Your task to perform on an android device: Clear all items from cart on bestbuy. Search for bose soundlink on bestbuy, select the first entry, add it to the cart, then select checkout. Image 0: 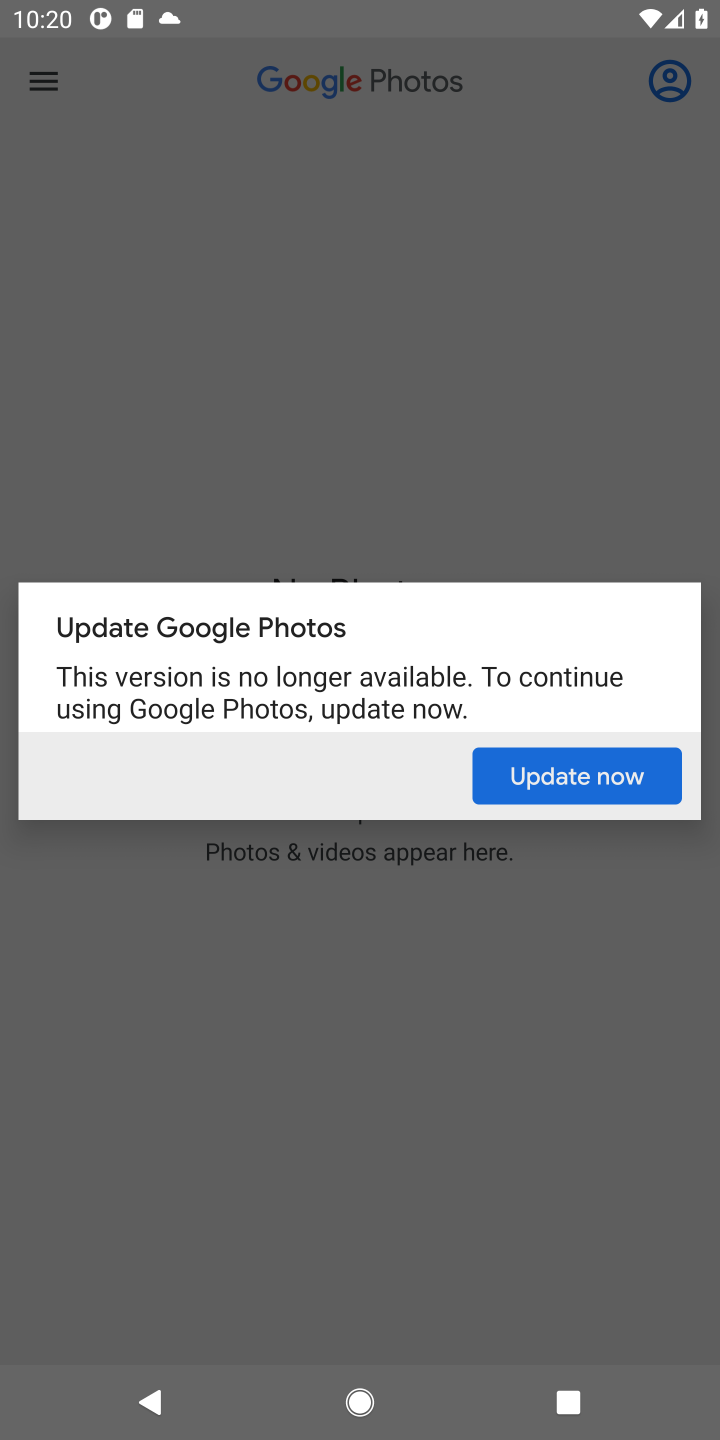
Step 0: press home button
Your task to perform on an android device: Clear all items from cart on bestbuy. Search for bose soundlink on bestbuy, select the first entry, add it to the cart, then select checkout. Image 1: 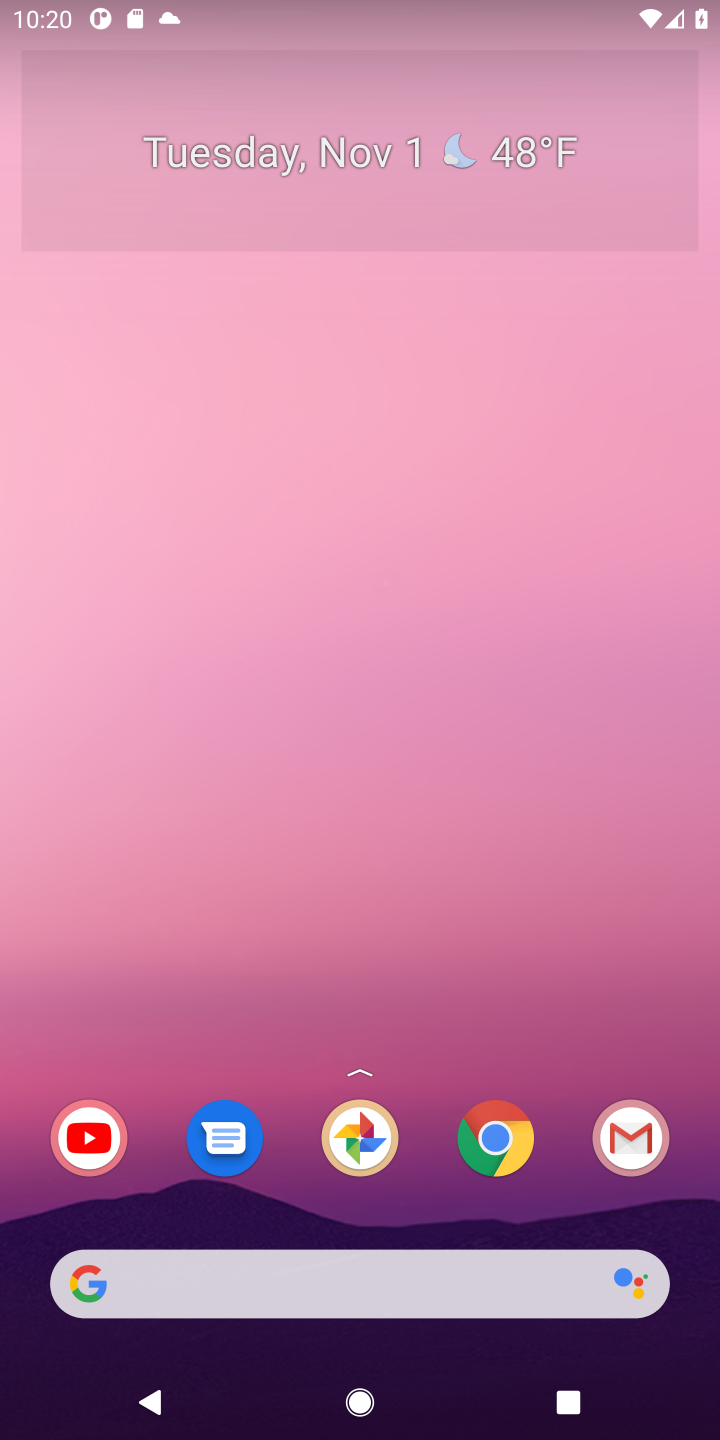
Step 1: click (498, 1141)
Your task to perform on an android device: Clear all items from cart on bestbuy. Search for bose soundlink on bestbuy, select the first entry, add it to the cart, then select checkout. Image 2: 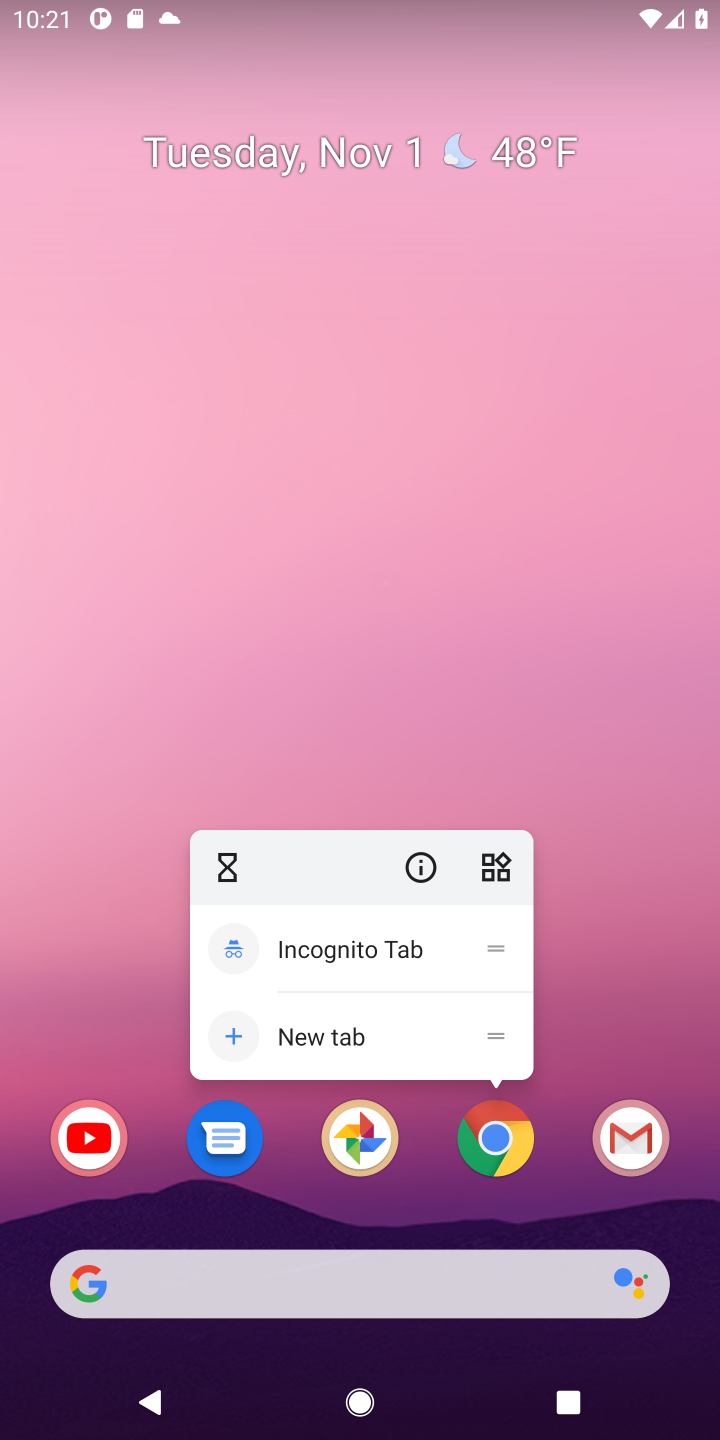
Step 2: click (496, 1130)
Your task to perform on an android device: Clear all items from cart on bestbuy. Search for bose soundlink on bestbuy, select the first entry, add it to the cart, then select checkout. Image 3: 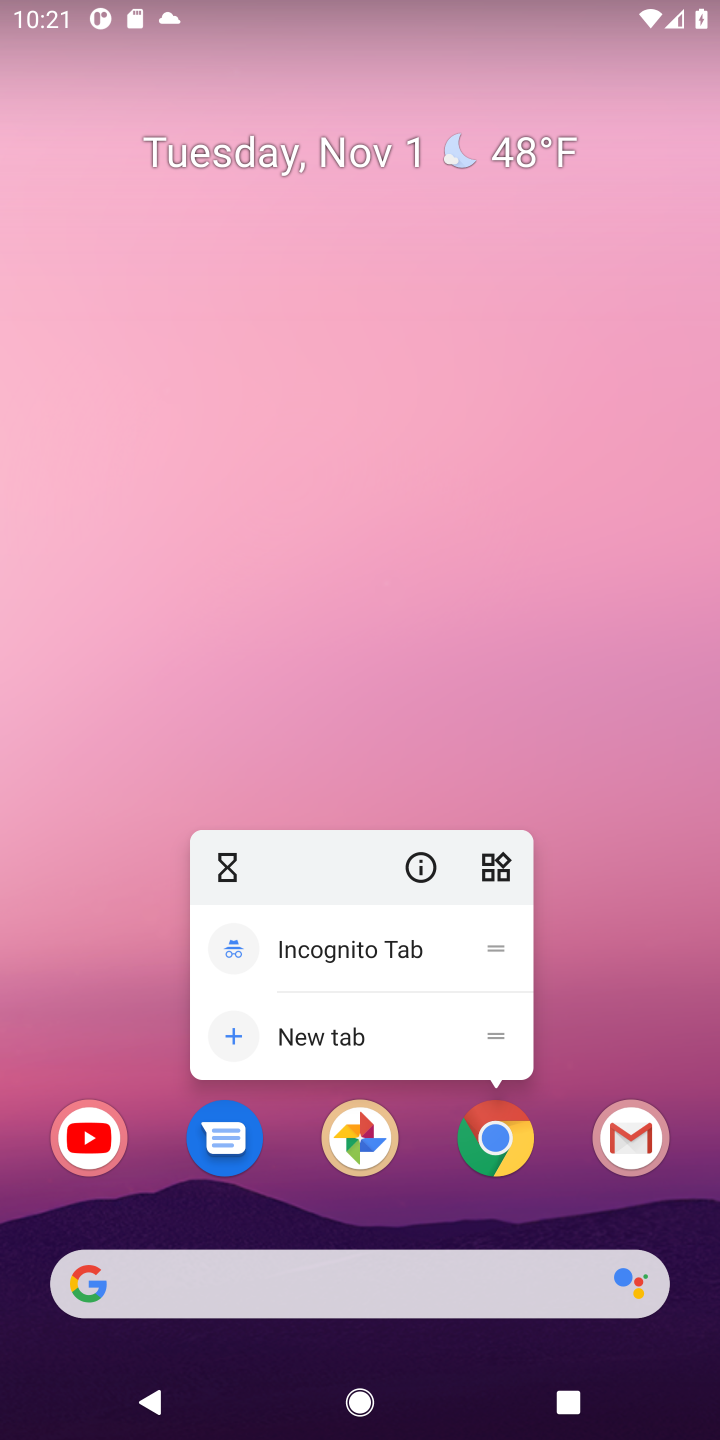
Step 3: click (495, 1142)
Your task to perform on an android device: Clear all items from cart on bestbuy. Search for bose soundlink on bestbuy, select the first entry, add it to the cart, then select checkout. Image 4: 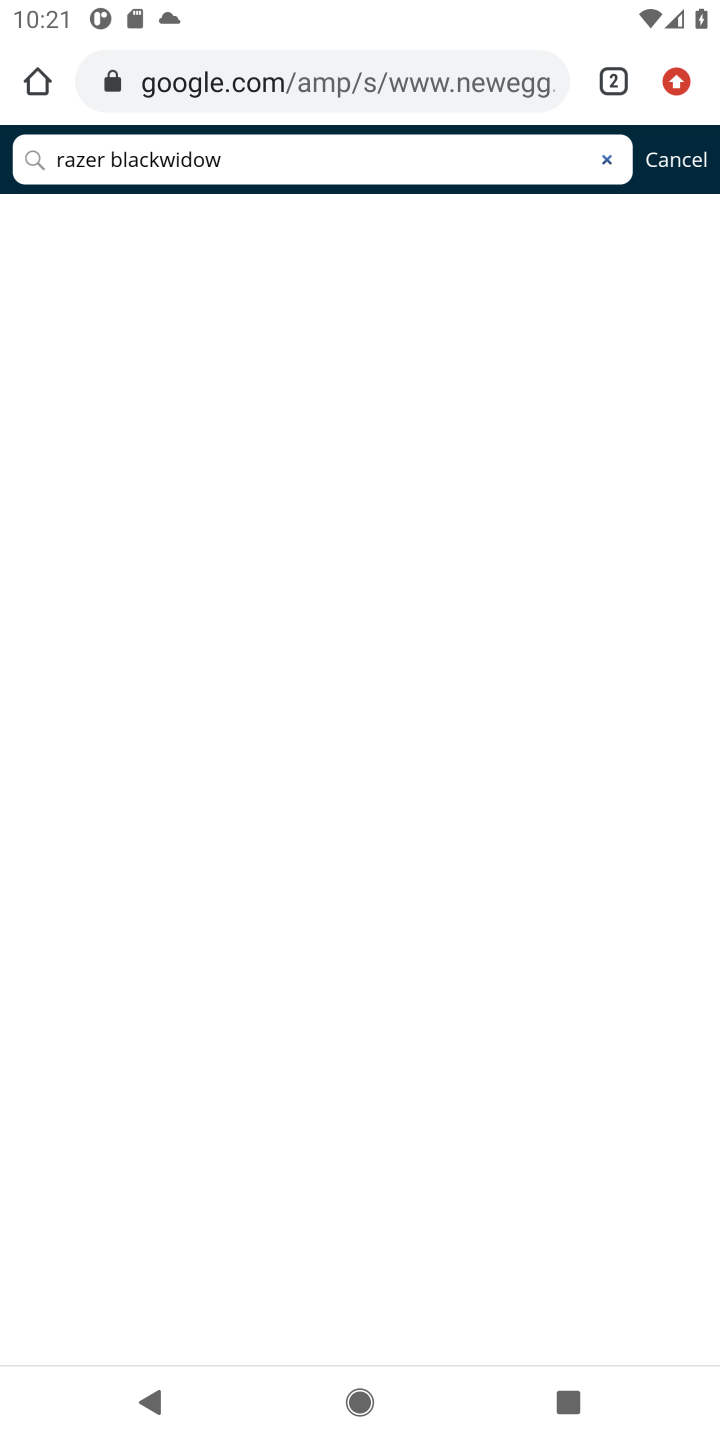
Step 4: click (404, 73)
Your task to perform on an android device: Clear all items from cart on bestbuy. Search for bose soundlink on bestbuy, select the first entry, add it to the cart, then select checkout. Image 5: 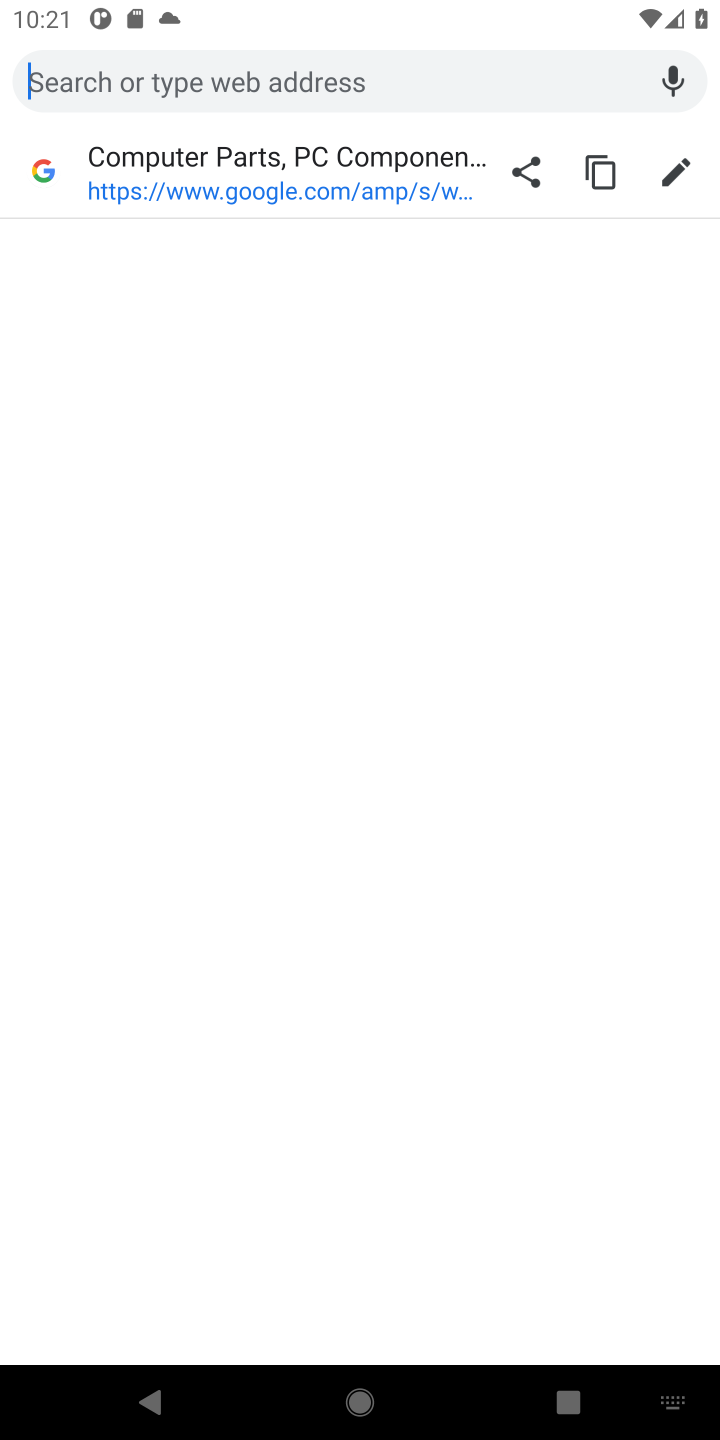
Step 5: type "bestbuy"
Your task to perform on an android device: Clear all items from cart on bestbuy. Search for bose soundlink on bestbuy, select the first entry, add it to the cart, then select checkout. Image 6: 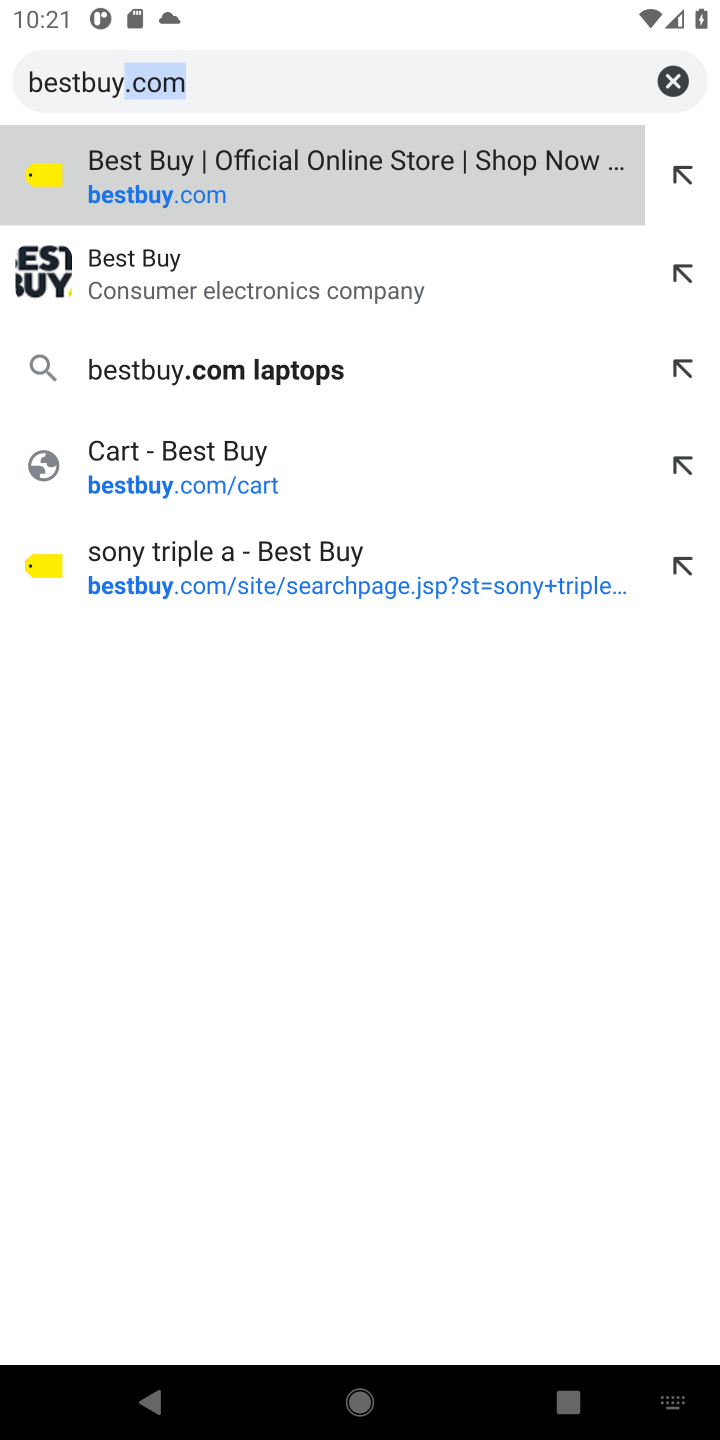
Step 6: click (256, 263)
Your task to perform on an android device: Clear all items from cart on bestbuy. Search for bose soundlink on bestbuy, select the first entry, add it to the cart, then select checkout. Image 7: 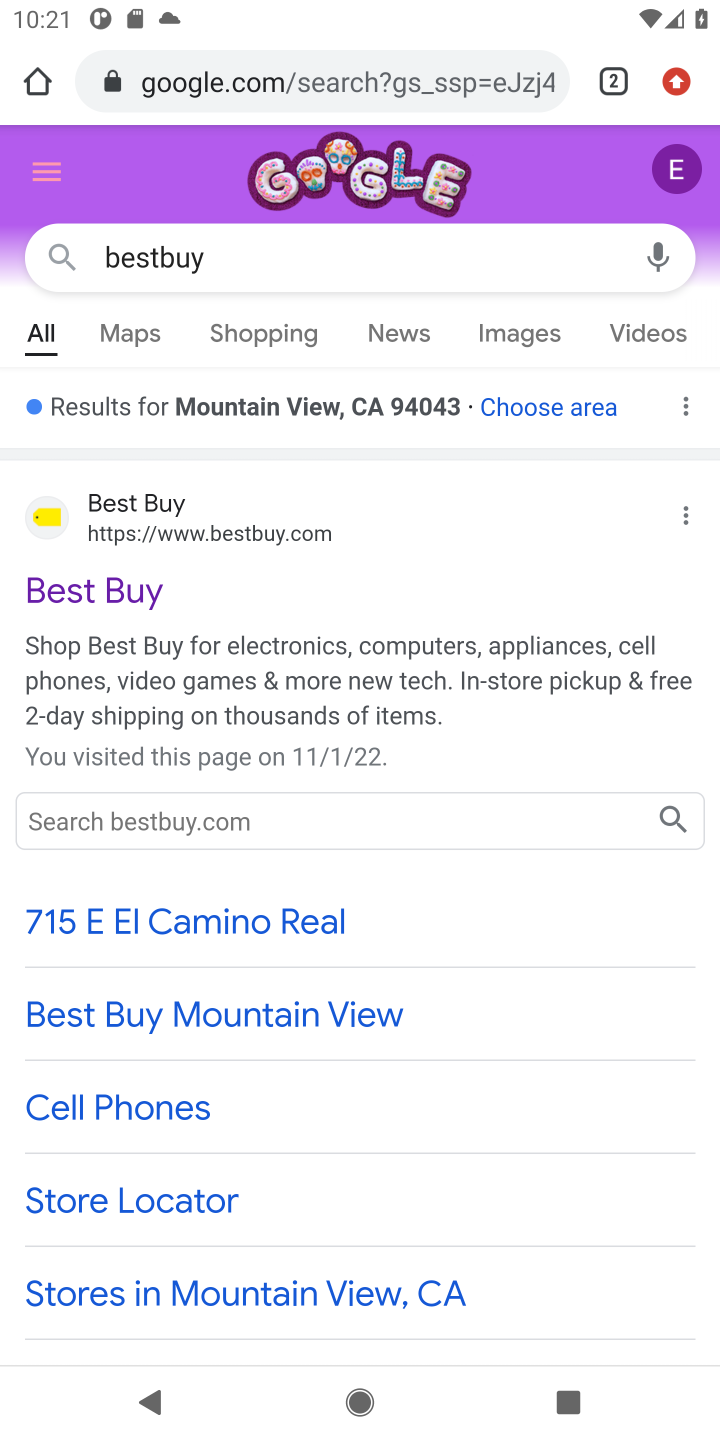
Step 7: click (217, 586)
Your task to perform on an android device: Clear all items from cart on bestbuy. Search for bose soundlink on bestbuy, select the first entry, add it to the cart, then select checkout. Image 8: 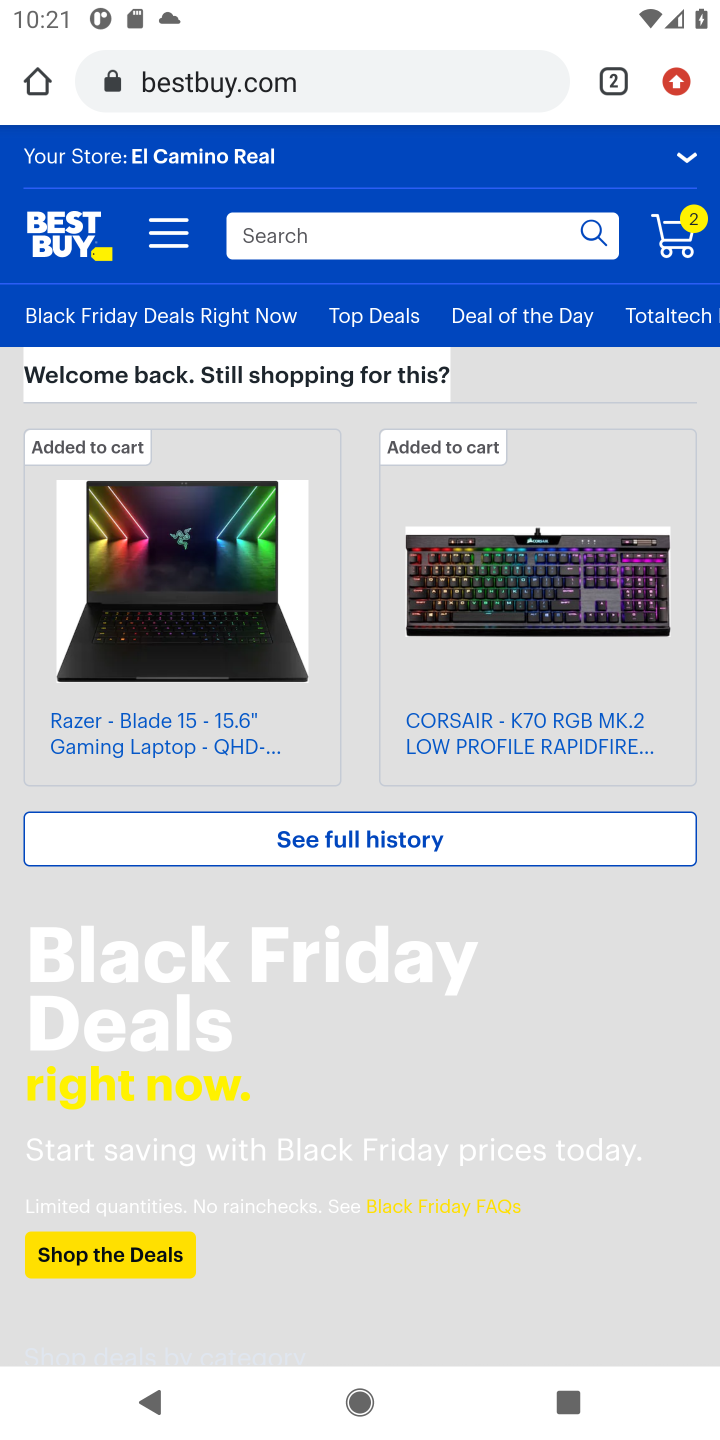
Step 8: click (682, 233)
Your task to perform on an android device: Clear all items from cart on bestbuy. Search for bose soundlink on bestbuy, select the first entry, add it to the cart, then select checkout. Image 9: 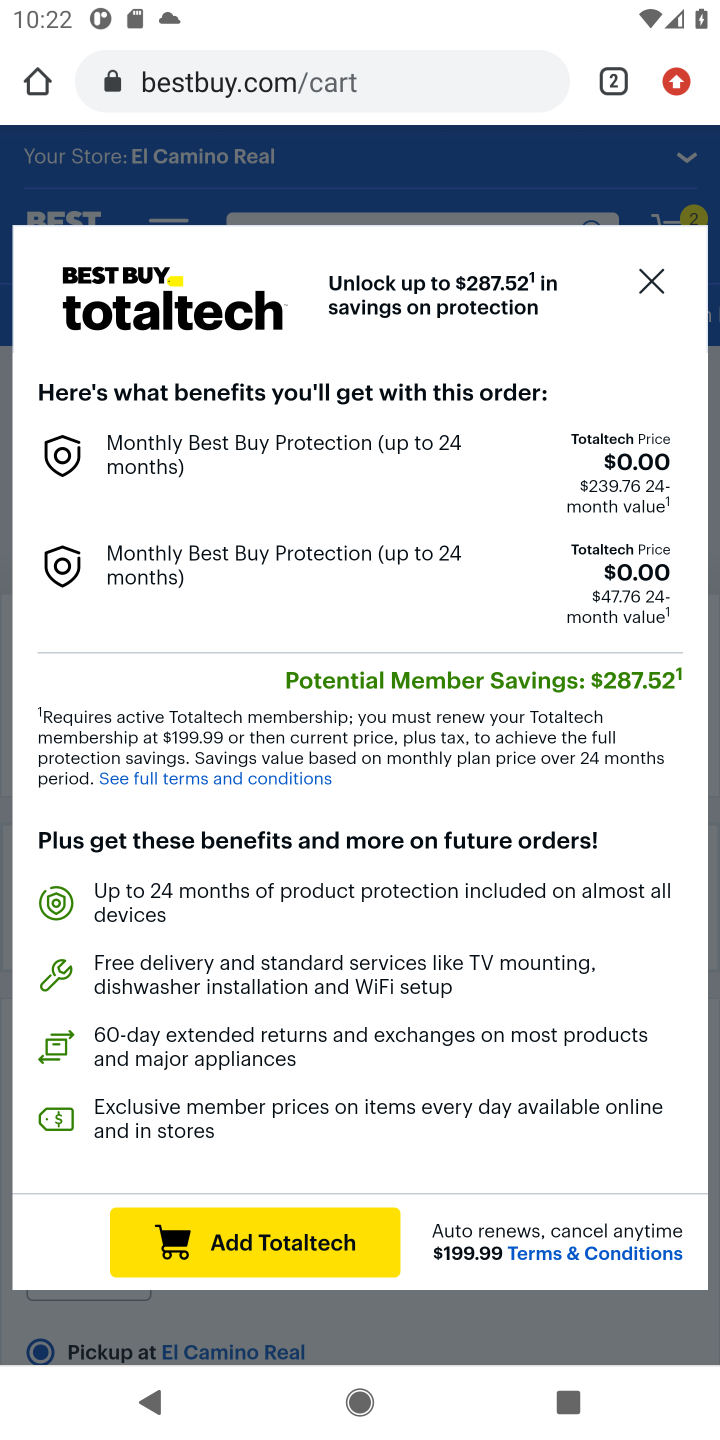
Step 9: click (653, 280)
Your task to perform on an android device: Clear all items from cart on bestbuy. Search for bose soundlink on bestbuy, select the first entry, add it to the cart, then select checkout. Image 10: 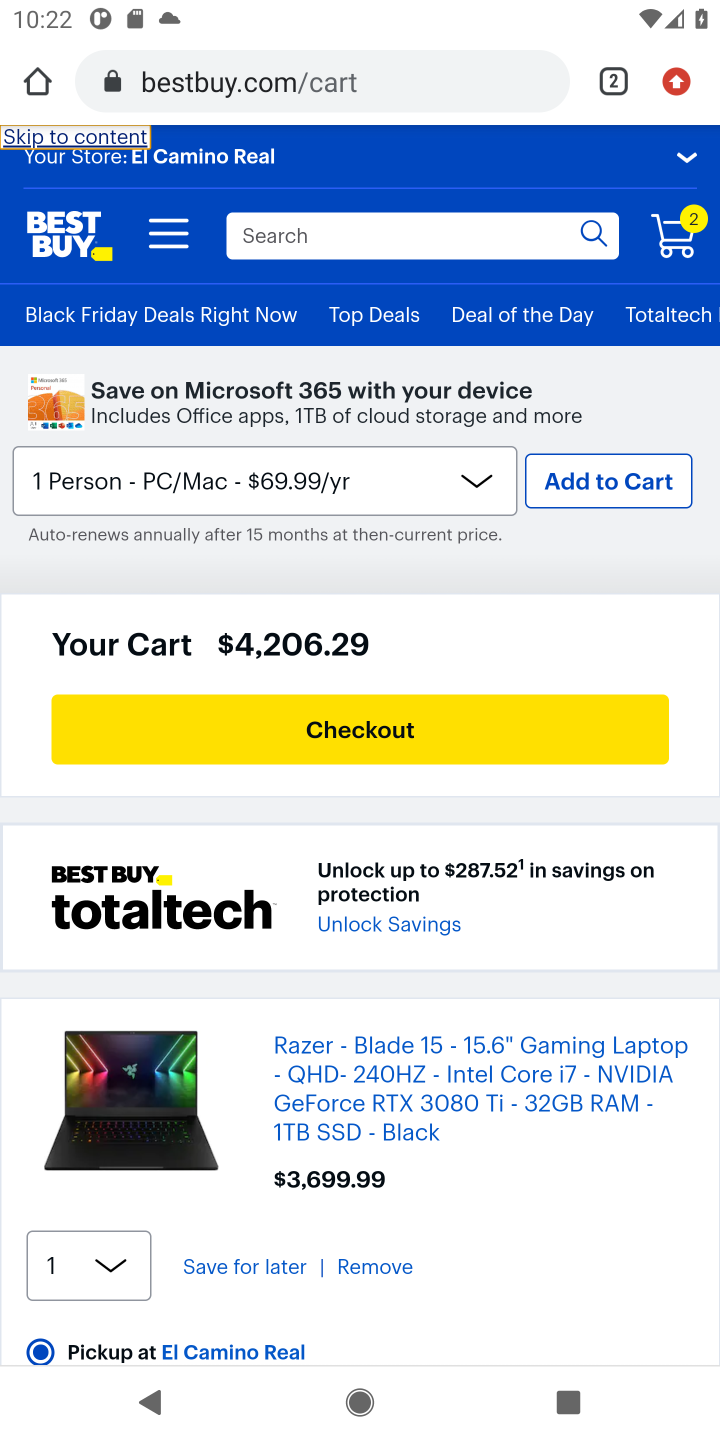
Step 10: click (373, 1268)
Your task to perform on an android device: Clear all items from cart on bestbuy. Search for bose soundlink on bestbuy, select the first entry, add it to the cart, then select checkout. Image 11: 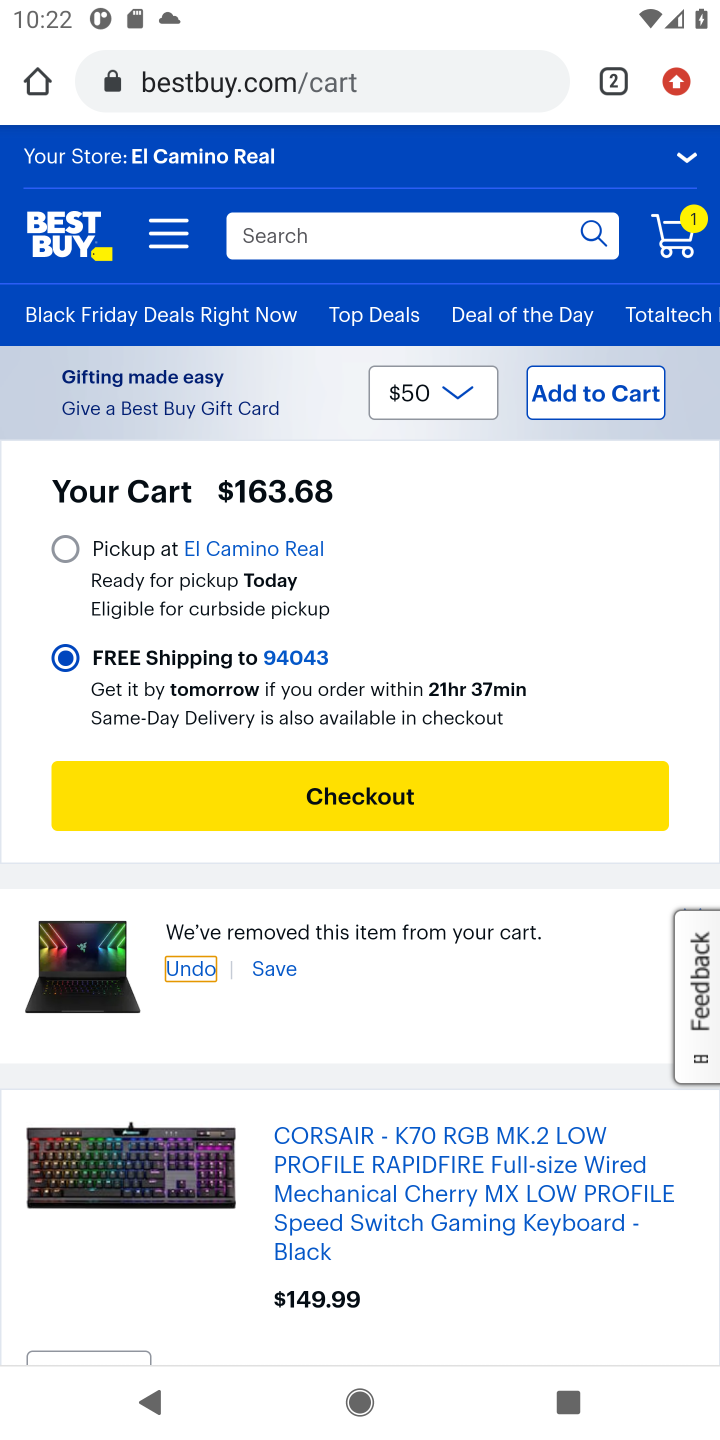
Step 11: drag from (427, 1089) to (437, 748)
Your task to perform on an android device: Clear all items from cart on bestbuy. Search for bose soundlink on bestbuy, select the first entry, add it to the cart, then select checkout. Image 12: 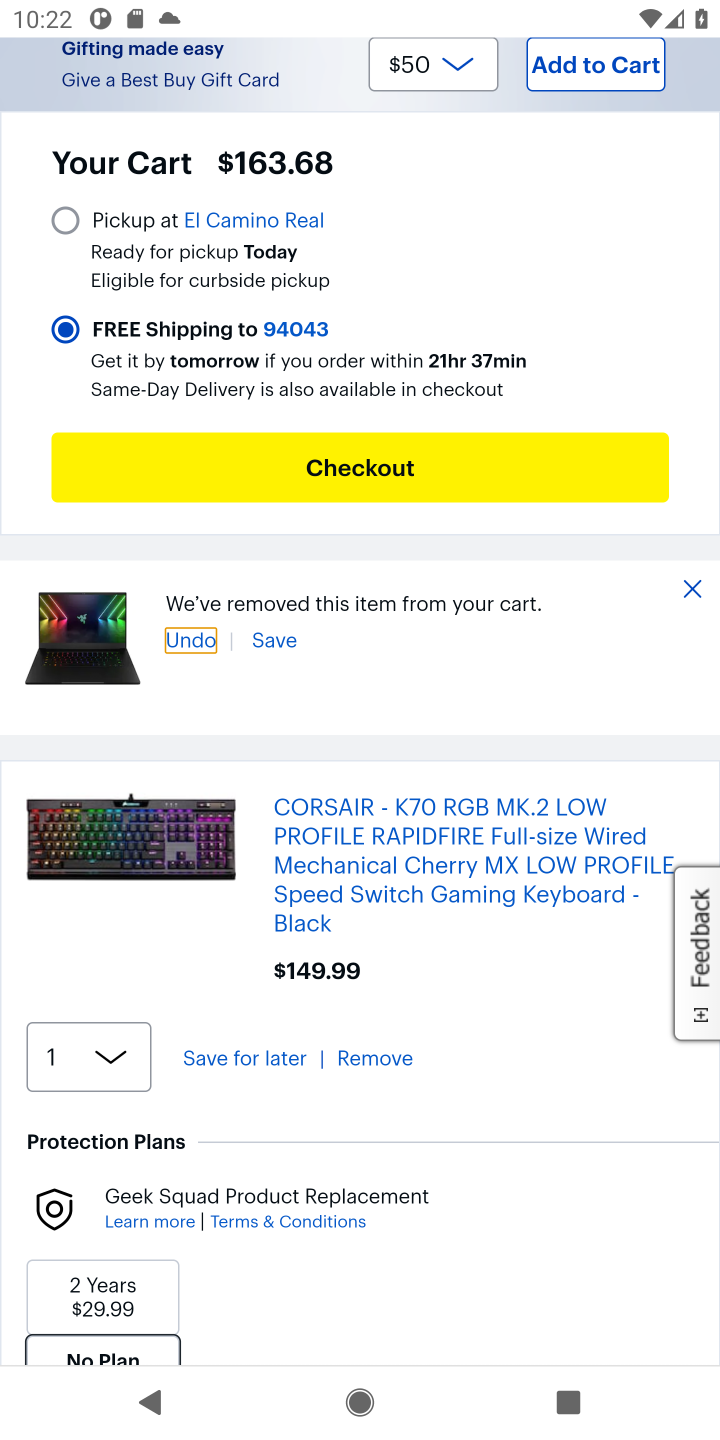
Step 12: click (371, 1053)
Your task to perform on an android device: Clear all items from cart on bestbuy. Search for bose soundlink on bestbuy, select the first entry, add it to the cart, then select checkout. Image 13: 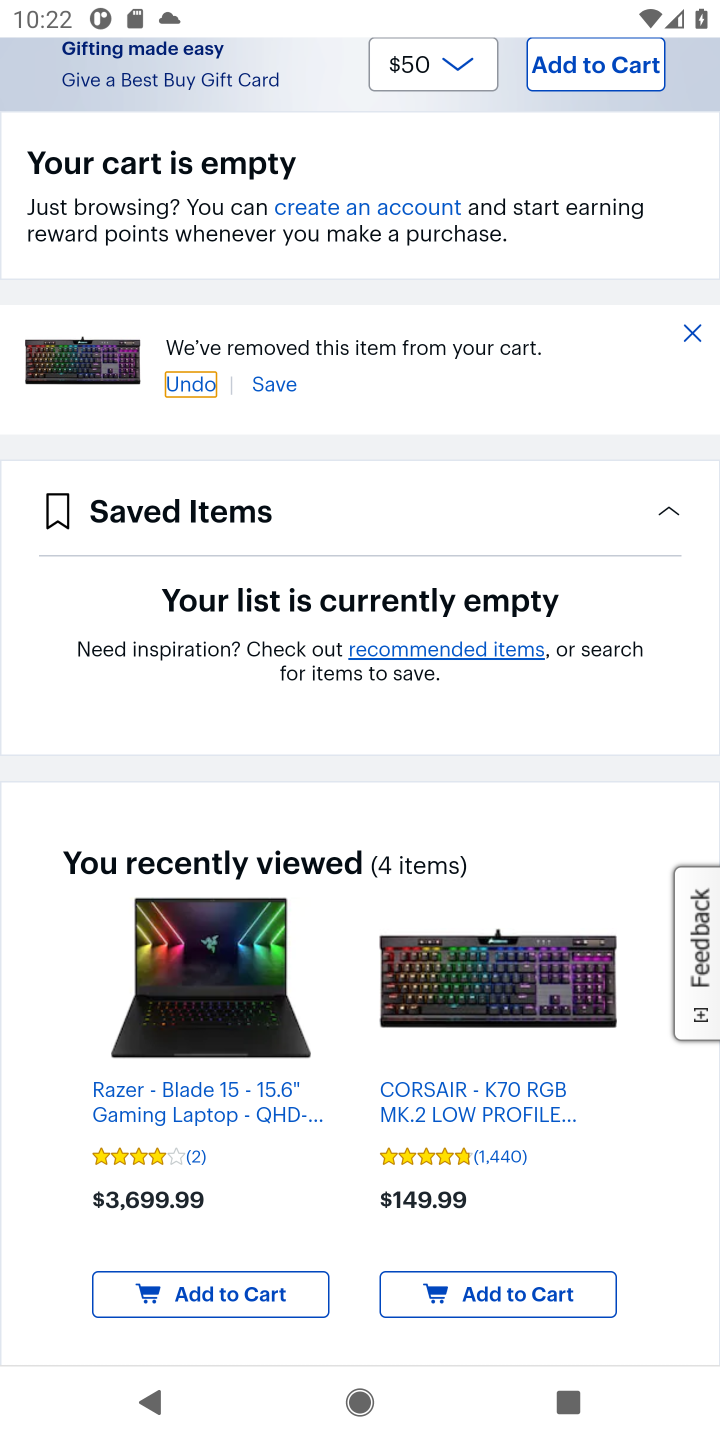
Step 13: task complete